Your task to perform on an android device: turn on translation in the chrome app Image 0: 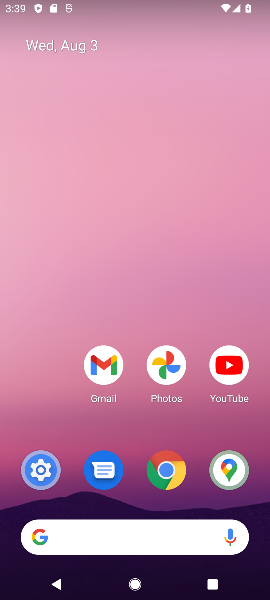
Step 0: press home button
Your task to perform on an android device: turn on translation in the chrome app Image 1: 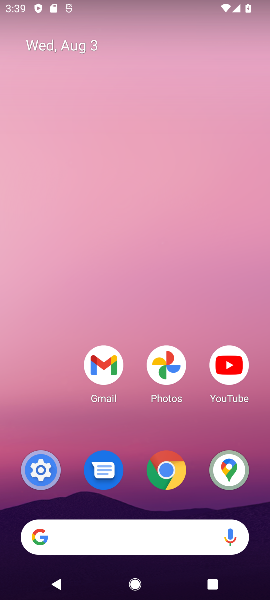
Step 1: press home button
Your task to perform on an android device: turn on translation in the chrome app Image 2: 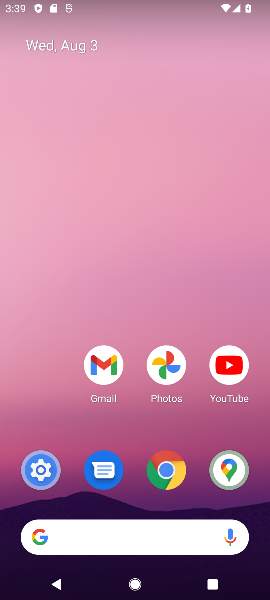
Step 2: click (174, 471)
Your task to perform on an android device: turn on translation in the chrome app Image 3: 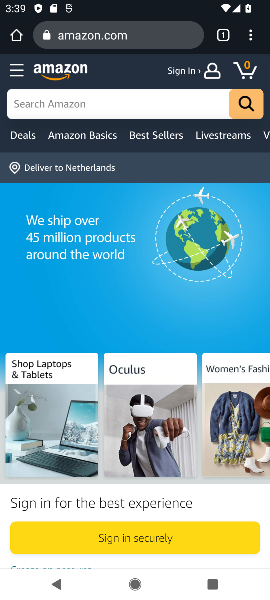
Step 3: click (250, 37)
Your task to perform on an android device: turn on translation in the chrome app Image 4: 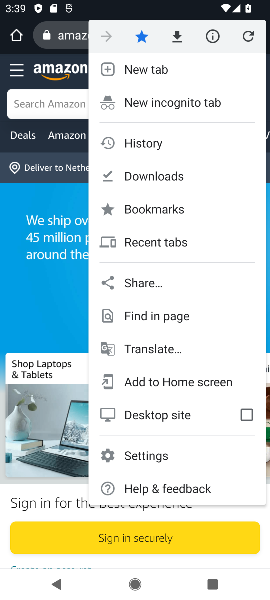
Step 4: click (158, 345)
Your task to perform on an android device: turn on translation in the chrome app Image 5: 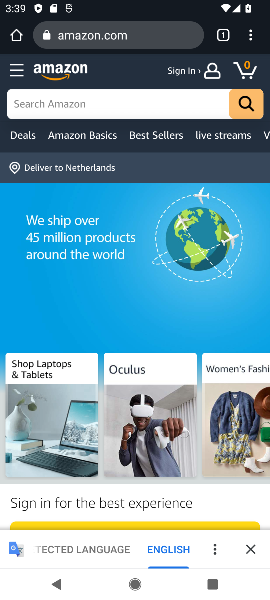
Step 5: task complete